Your task to perform on an android device: change the upload size in google photos Image 0: 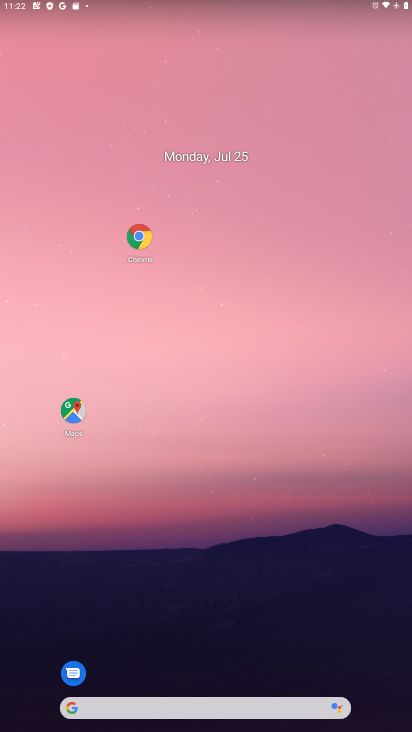
Step 0: drag from (230, 663) to (261, 37)
Your task to perform on an android device: change the upload size in google photos Image 1: 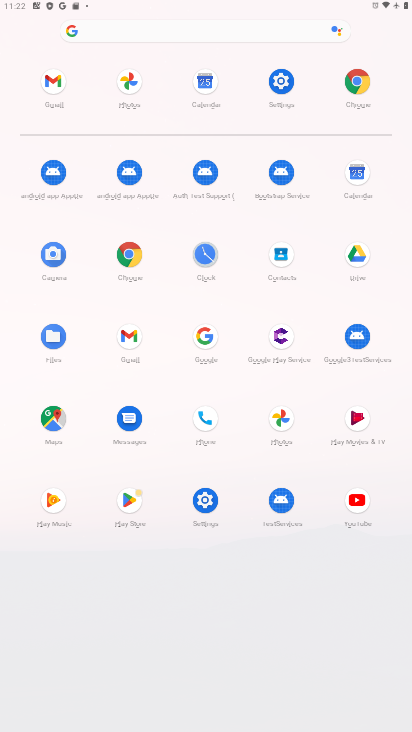
Step 1: click (131, 98)
Your task to perform on an android device: change the upload size in google photos Image 2: 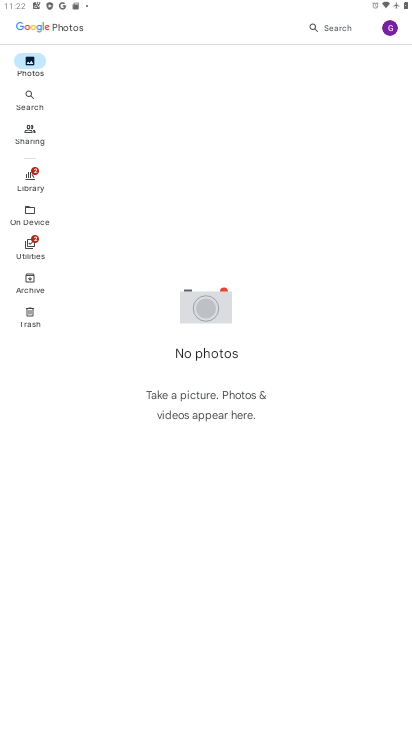
Step 2: task complete